Your task to perform on an android device: Open the web browser Image 0: 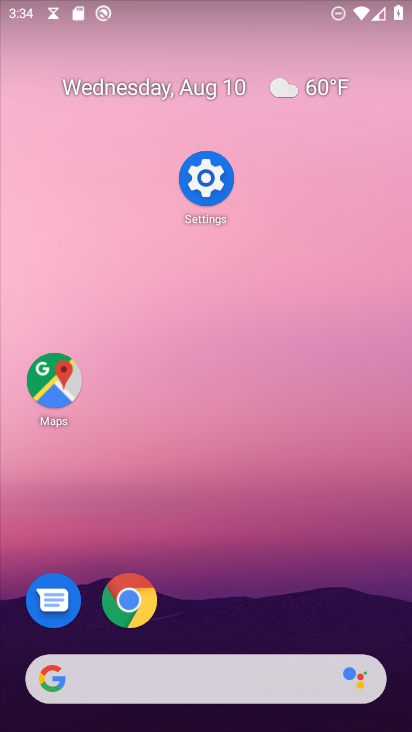
Step 0: press home button
Your task to perform on an android device: Open the web browser Image 1: 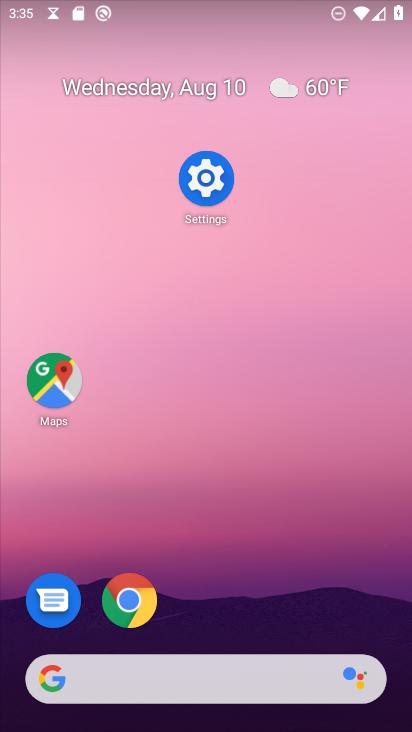
Step 1: click (52, 698)
Your task to perform on an android device: Open the web browser Image 2: 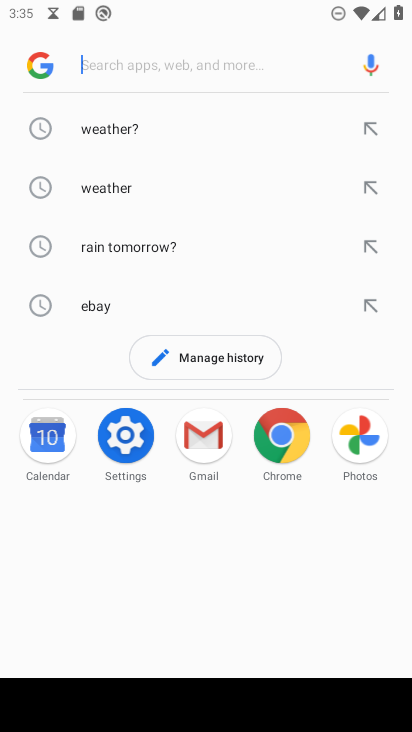
Step 2: task complete